Your task to perform on an android device: toggle notifications settings in the gmail app Image 0: 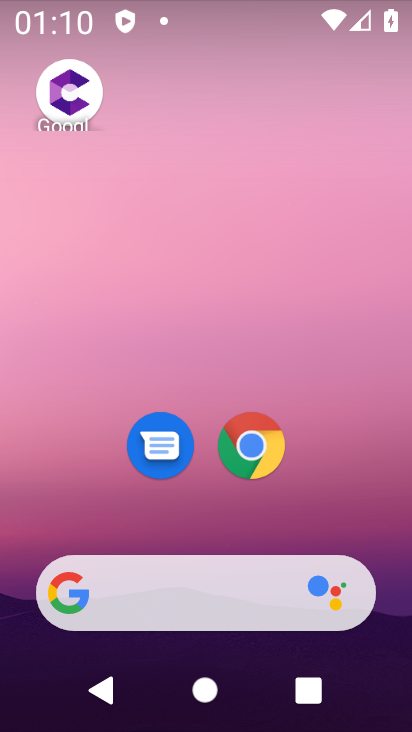
Step 0: drag from (209, 503) to (273, 98)
Your task to perform on an android device: toggle notifications settings in the gmail app Image 1: 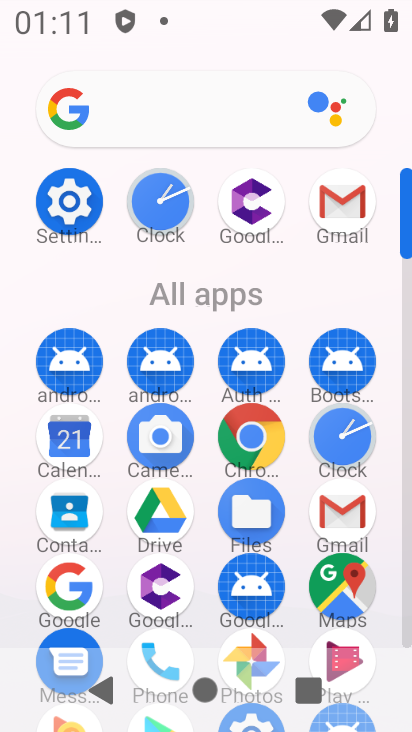
Step 1: click (331, 507)
Your task to perform on an android device: toggle notifications settings in the gmail app Image 2: 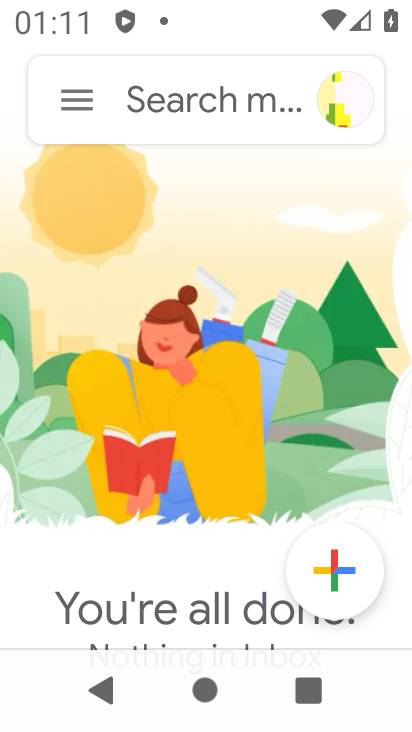
Step 2: click (85, 83)
Your task to perform on an android device: toggle notifications settings in the gmail app Image 3: 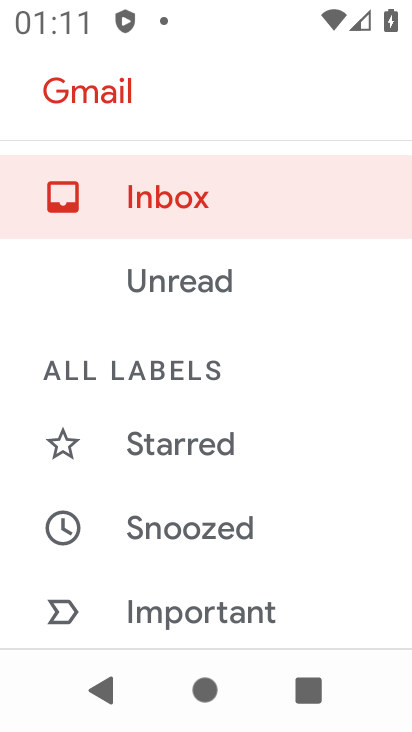
Step 3: drag from (140, 576) to (207, 200)
Your task to perform on an android device: toggle notifications settings in the gmail app Image 4: 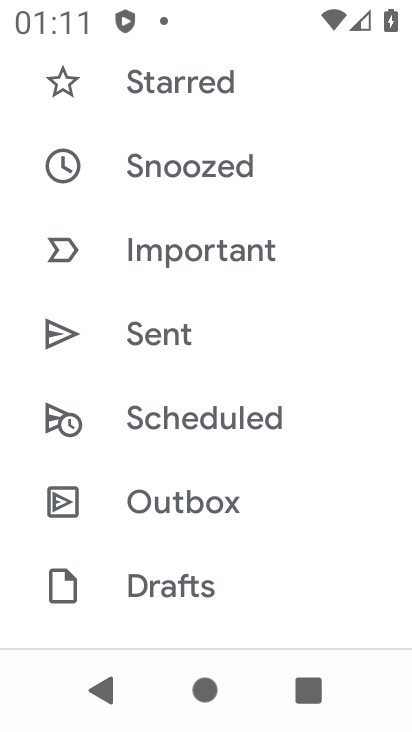
Step 4: drag from (185, 576) to (213, 288)
Your task to perform on an android device: toggle notifications settings in the gmail app Image 5: 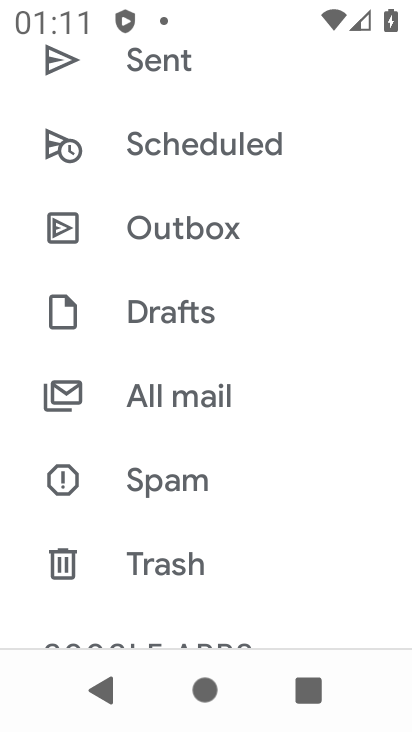
Step 5: drag from (155, 542) to (182, 148)
Your task to perform on an android device: toggle notifications settings in the gmail app Image 6: 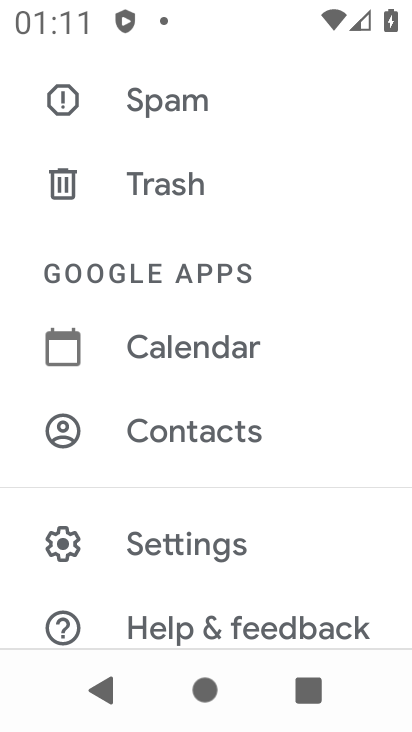
Step 6: click (275, 548)
Your task to perform on an android device: toggle notifications settings in the gmail app Image 7: 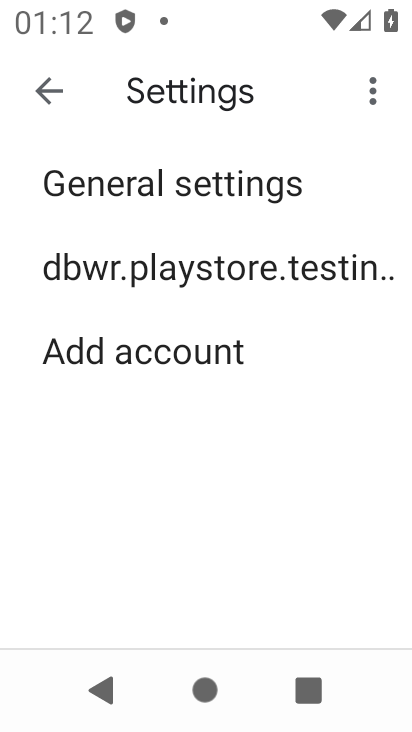
Step 7: click (217, 250)
Your task to perform on an android device: toggle notifications settings in the gmail app Image 8: 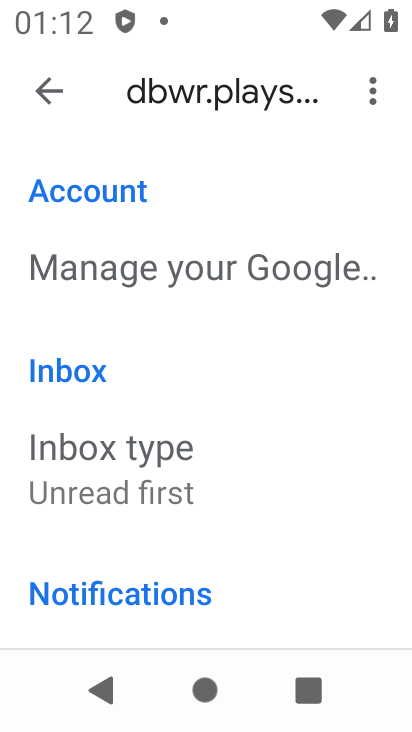
Step 8: drag from (143, 566) to (203, 253)
Your task to perform on an android device: toggle notifications settings in the gmail app Image 9: 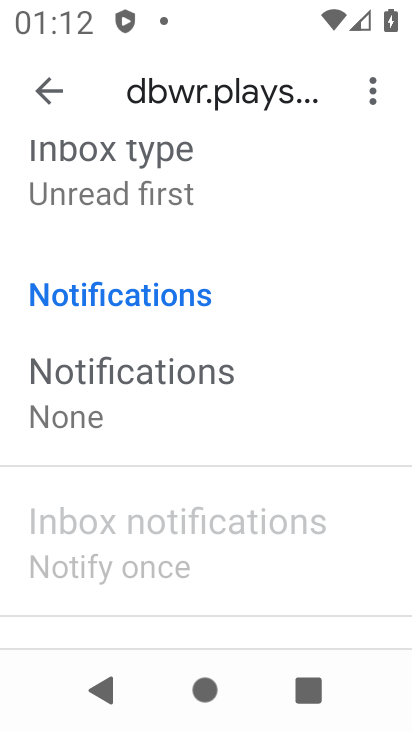
Step 9: click (240, 426)
Your task to perform on an android device: toggle notifications settings in the gmail app Image 10: 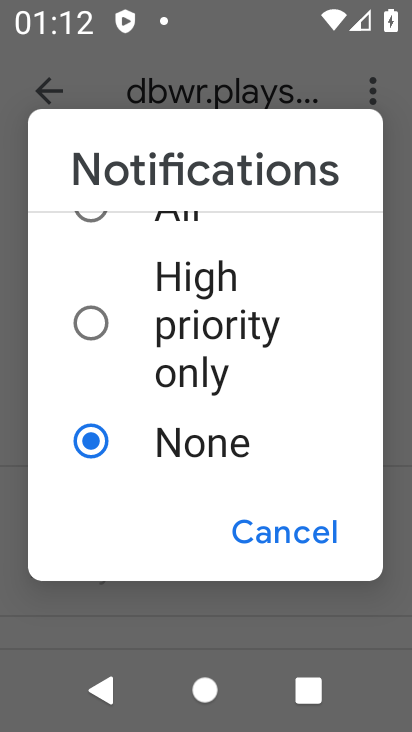
Step 10: click (244, 375)
Your task to perform on an android device: toggle notifications settings in the gmail app Image 11: 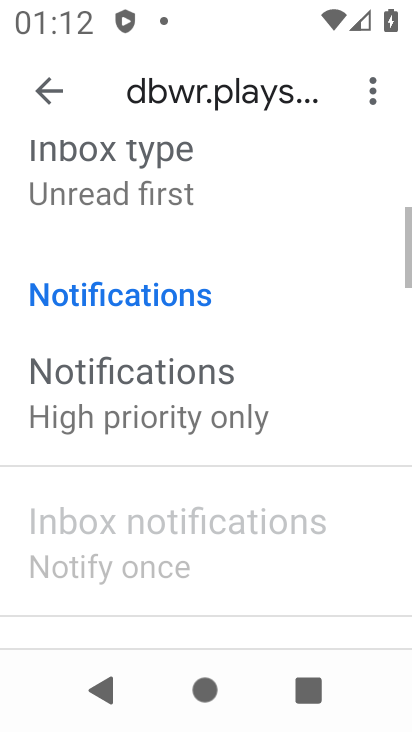
Step 11: task complete